Your task to perform on an android device: delete the emails in spam in the gmail app Image 0: 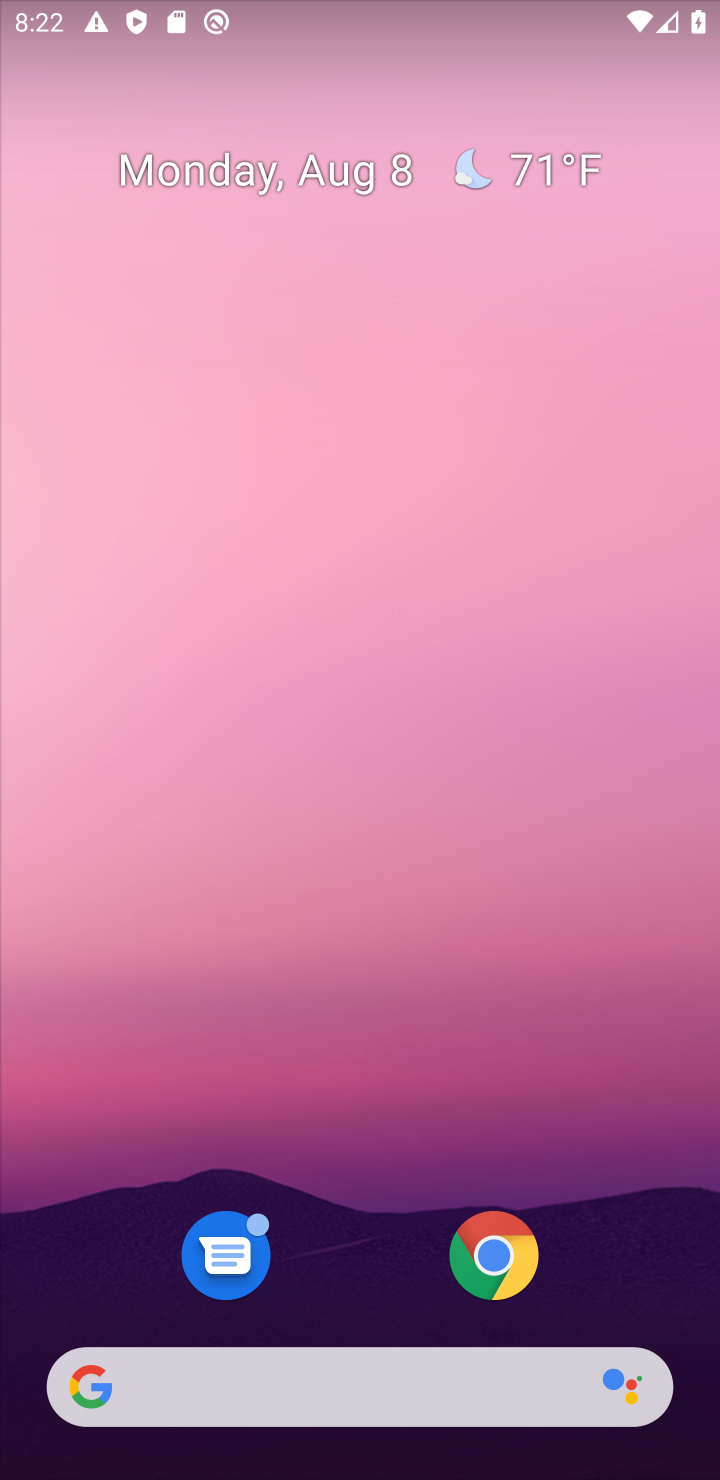
Step 0: drag from (379, 1276) to (383, 78)
Your task to perform on an android device: delete the emails in spam in the gmail app Image 1: 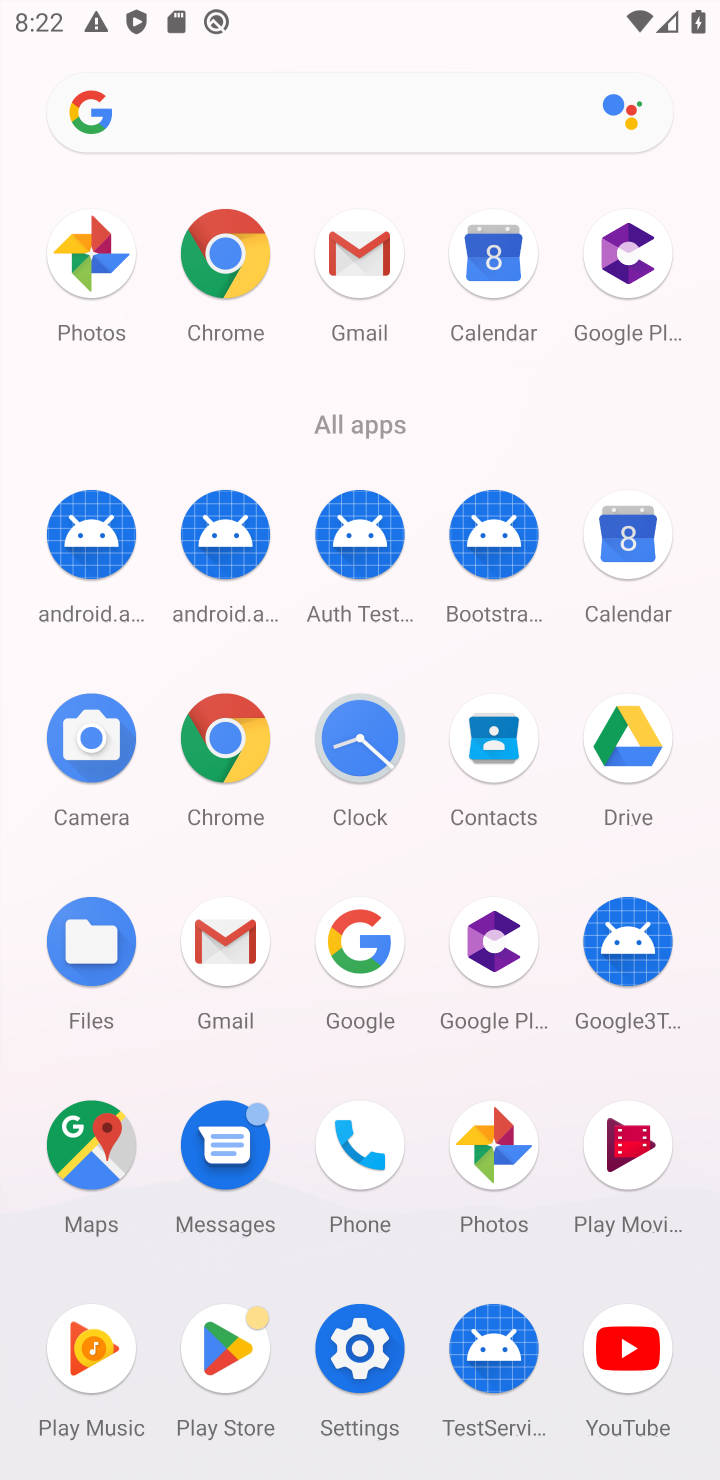
Step 1: click (225, 924)
Your task to perform on an android device: delete the emails in spam in the gmail app Image 2: 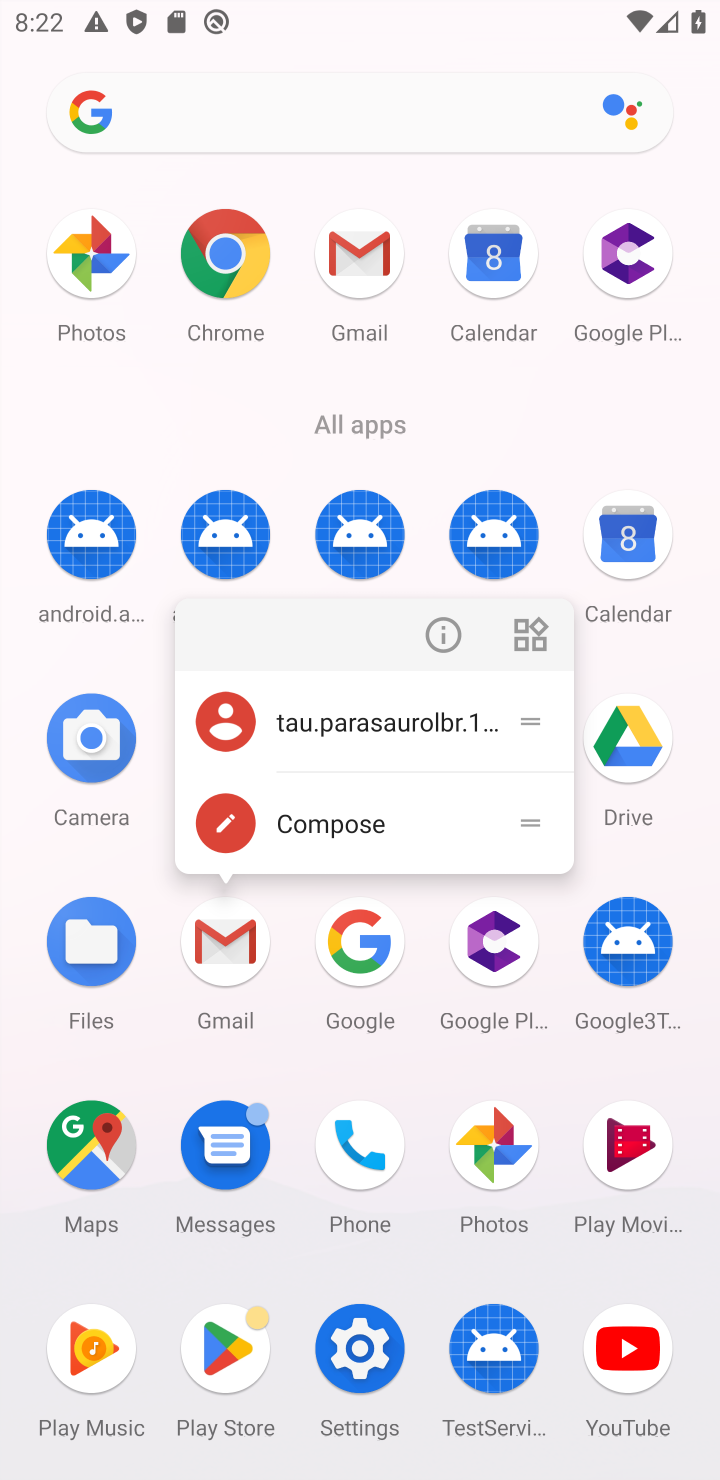
Step 2: click (223, 934)
Your task to perform on an android device: delete the emails in spam in the gmail app Image 3: 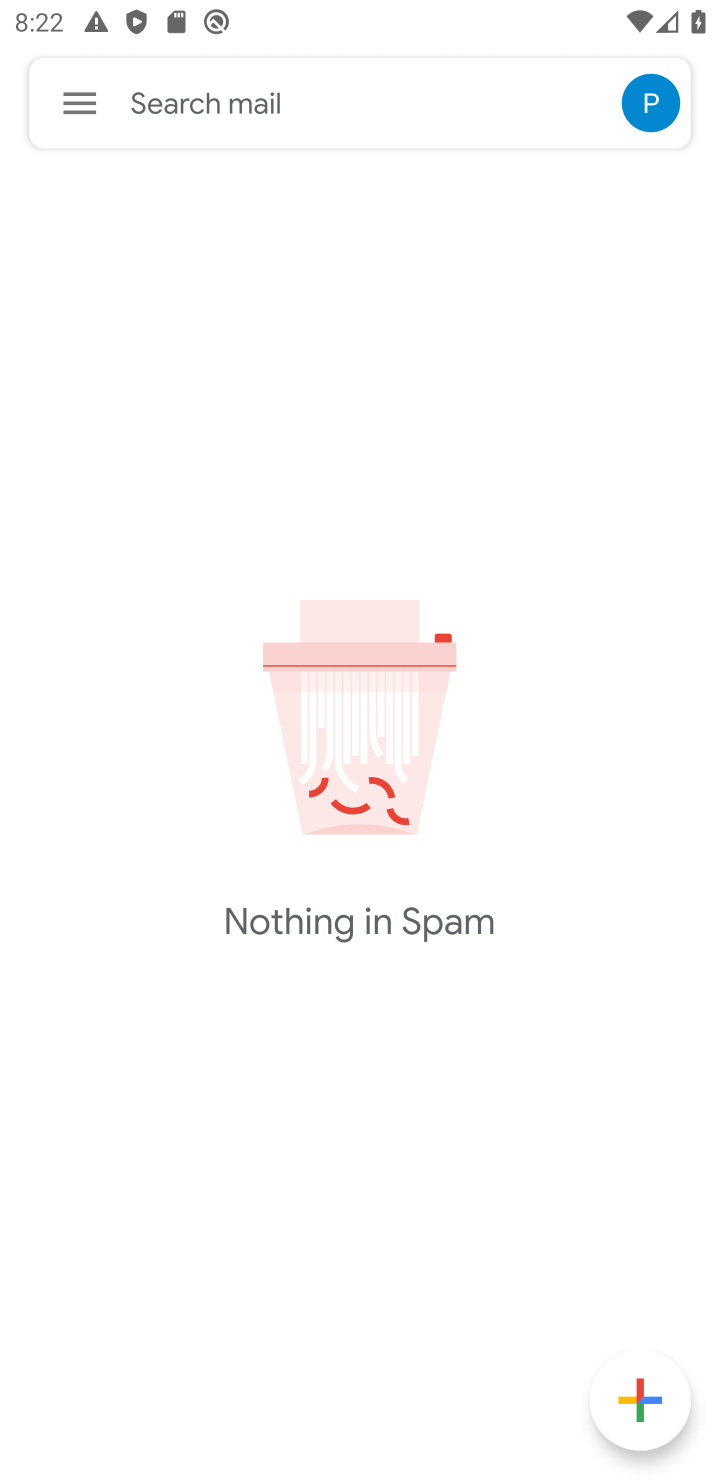
Step 3: task complete